Your task to perform on an android device: change alarm snooze length Image 0: 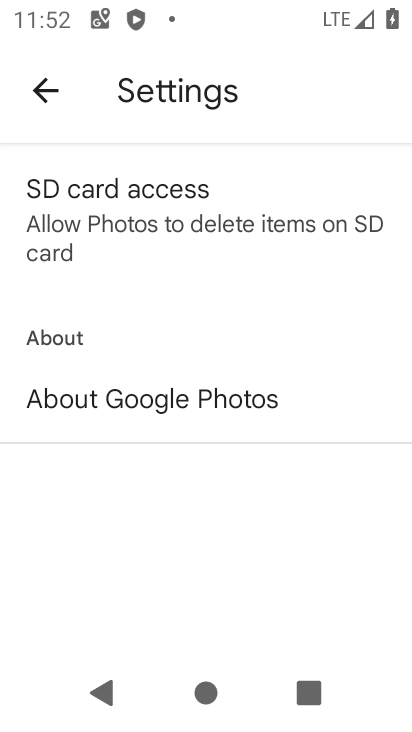
Step 0: press back button
Your task to perform on an android device: change alarm snooze length Image 1: 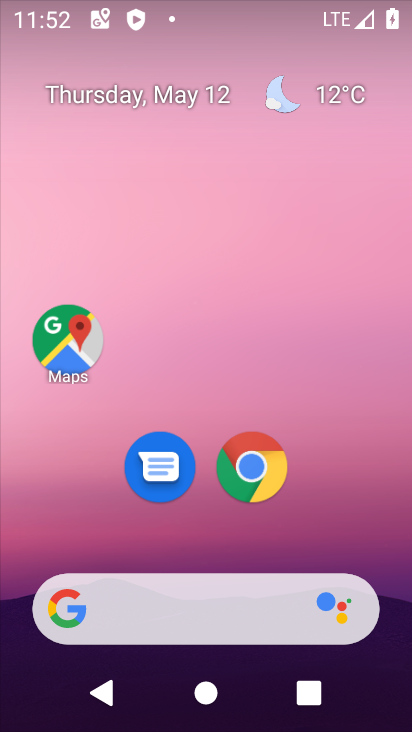
Step 1: drag from (365, 496) to (254, 24)
Your task to perform on an android device: change alarm snooze length Image 2: 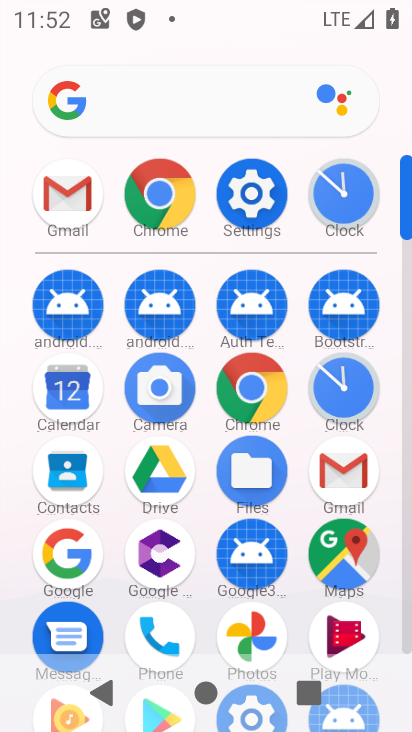
Step 2: drag from (17, 592) to (14, 282)
Your task to perform on an android device: change alarm snooze length Image 3: 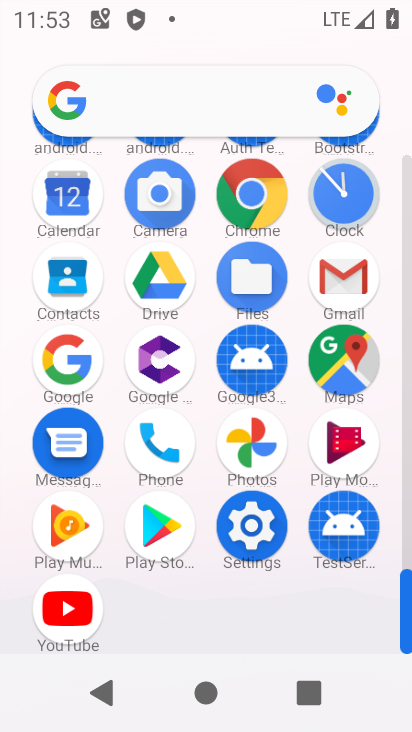
Step 3: click (344, 191)
Your task to perform on an android device: change alarm snooze length Image 4: 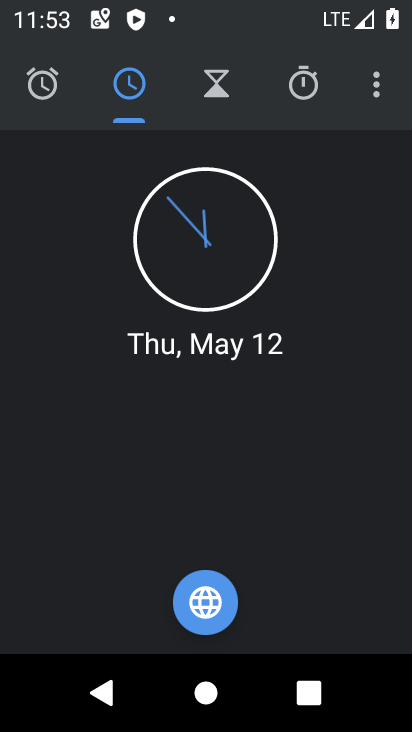
Step 4: drag from (371, 82) to (302, 170)
Your task to perform on an android device: change alarm snooze length Image 5: 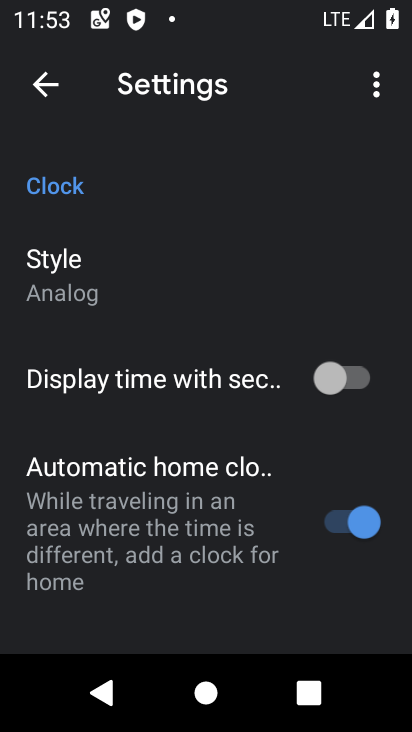
Step 5: drag from (158, 463) to (185, 138)
Your task to perform on an android device: change alarm snooze length Image 6: 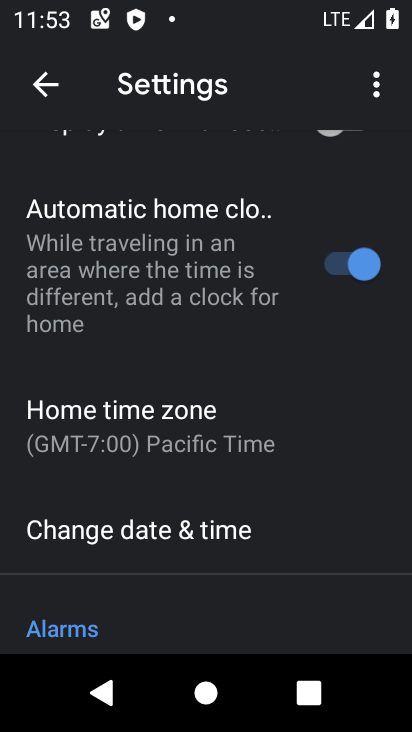
Step 6: drag from (172, 493) to (213, 132)
Your task to perform on an android device: change alarm snooze length Image 7: 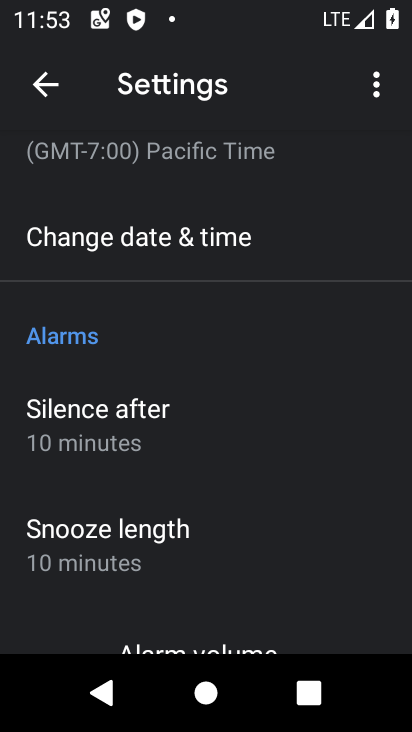
Step 7: click (162, 542)
Your task to perform on an android device: change alarm snooze length Image 8: 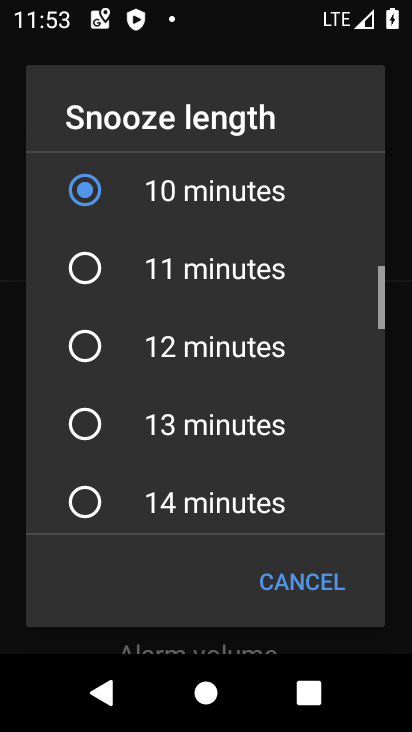
Step 8: click (214, 348)
Your task to perform on an android device: change alarm snooze length Image 9: 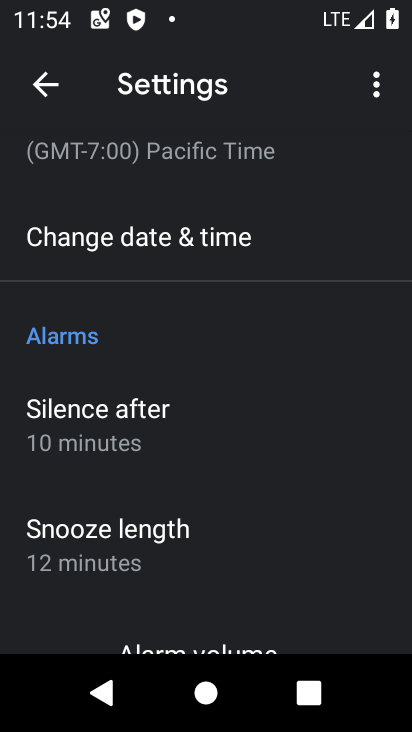
Step 9: task complete